Your task to perform on an android device: turn on data saver in the chrome app Image 0: 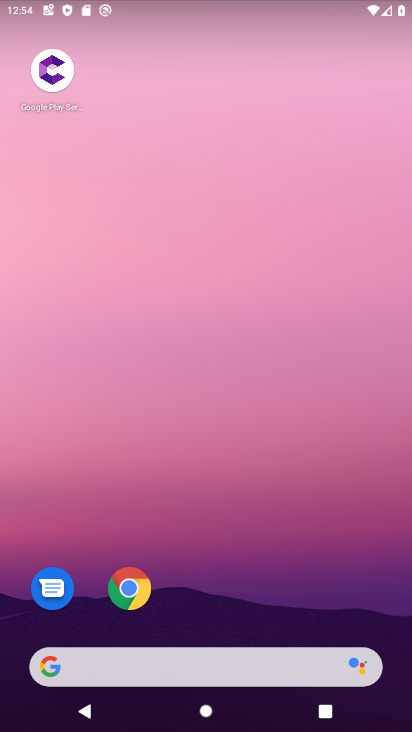
Step 0: drag from (323, 599) to (317, 195)
Your task to perform on an android device: turn on data saver in the chrome app Image 1: 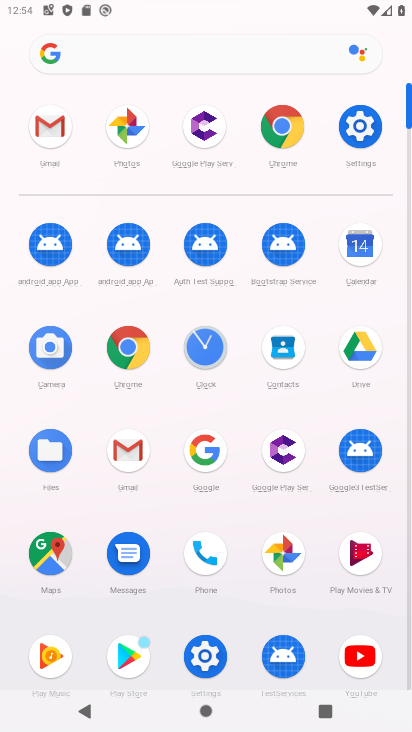
Step 1: click (288, 119)
Your task to perform on an android device: turn on data saver in the chrome app Image 2: 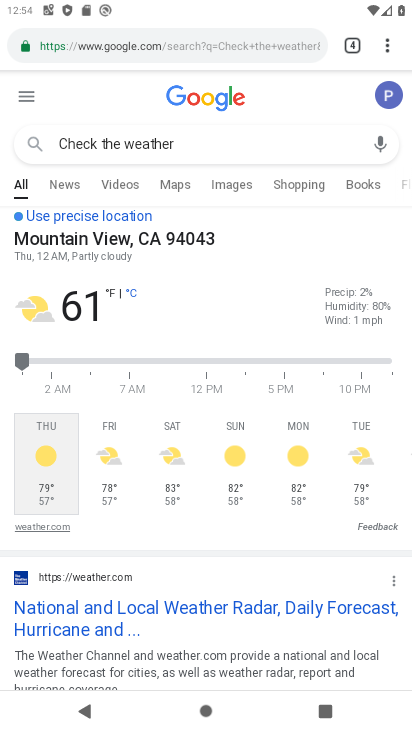
Step 2: click (391, 27)
Your task to perform on an android device: turn on data saver in the chrome app Image 3: 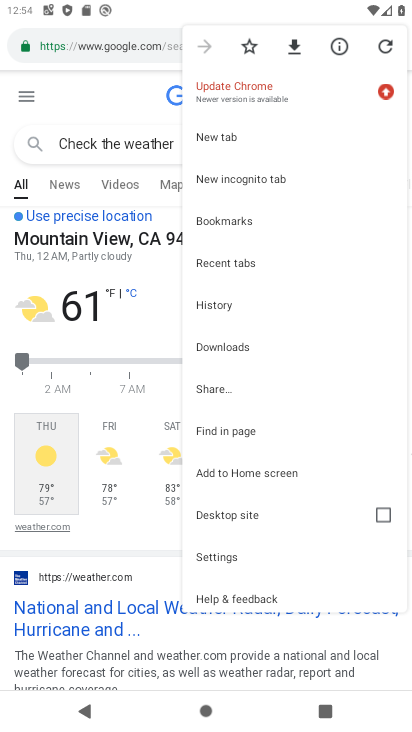
Step 3: click (232, 561)
Your task to perform on an android device: turn on data saver in the chrome app Image 4: 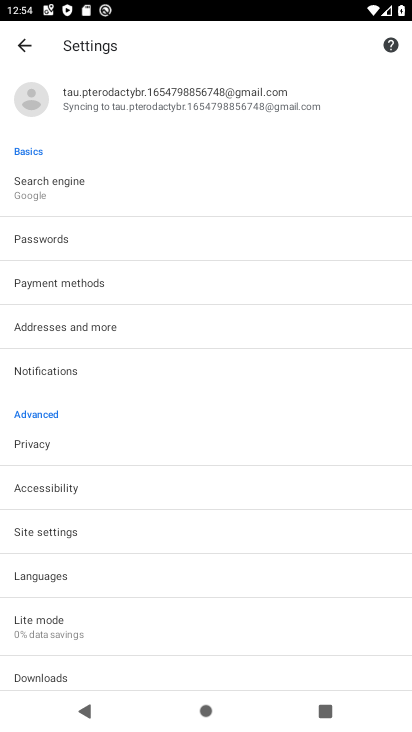
Step 4: click (78, 628)
Your task to perform on an android device: turn on data saver in the chrome app Image 5: 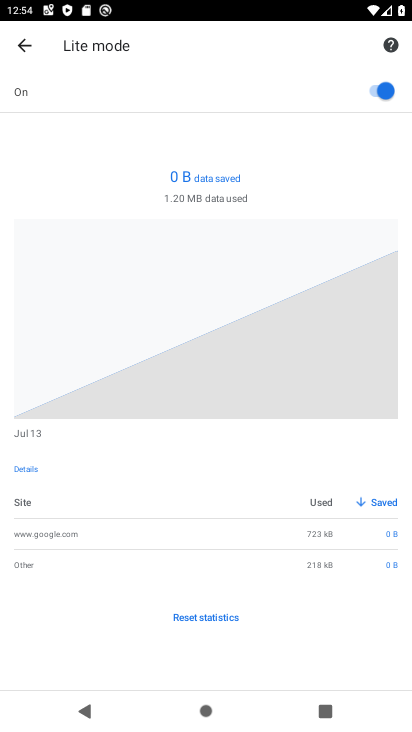
Step 5: click (100, 630)
Your task to perform on an android device: turn on data saver in the chrome app Image 6: 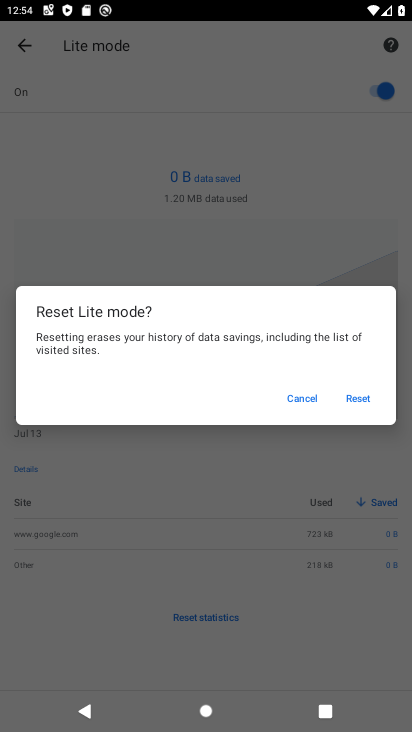
Step 6: click (281, 387)
Your task to perform on an android device: turn on data saver in the chrome app Image 7: 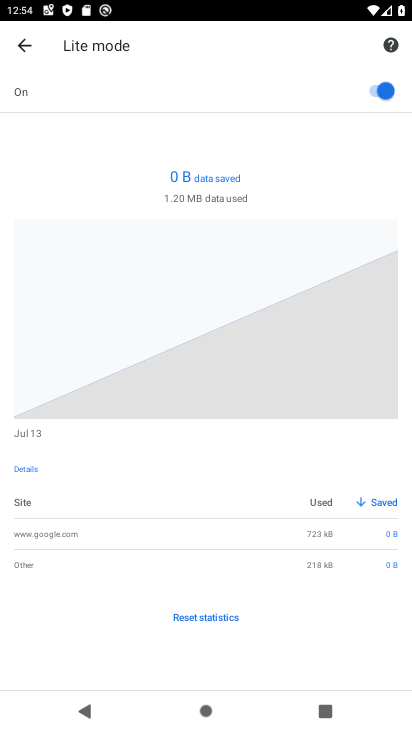
Step 7: task complete